Your task to perform on an android device: choose inbox layout in the gmail app Image 0: 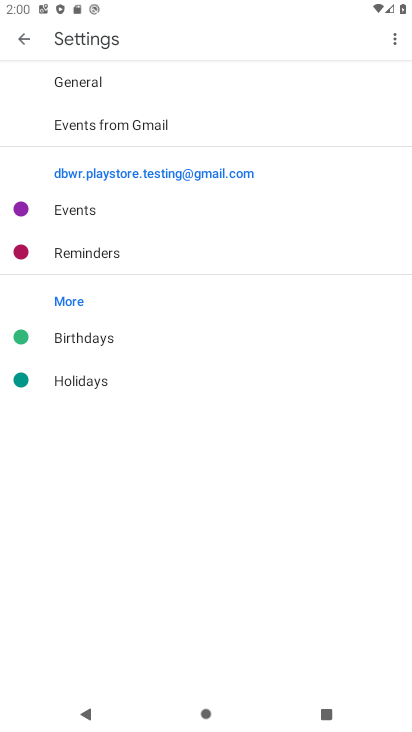
Step 0: press home button
Your task to perform on an android device: choose inbox layout in the gmail app Image 1: 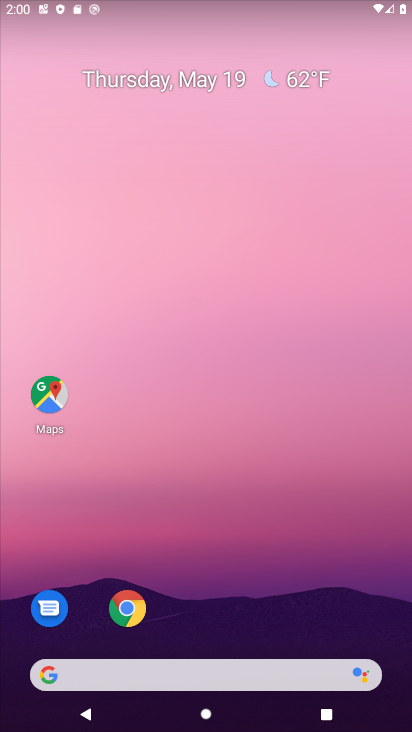
Step 1: drag from (236, 631) to (227, 2)
Your task to perform on an android device: choose inbox layout in the gmail app Image 2: 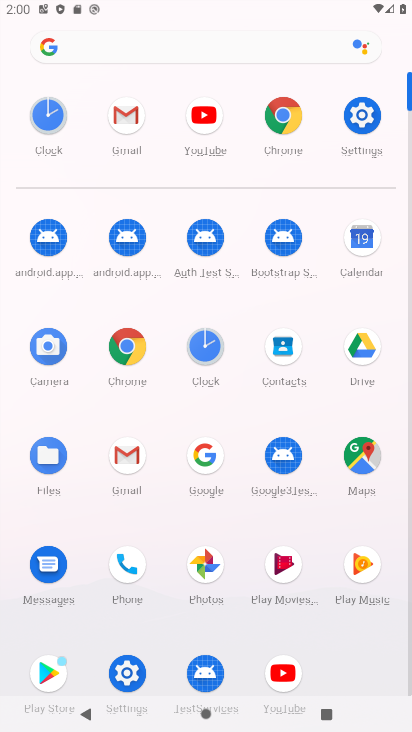
Step 2: click (118, 111)
Your task to perform on an android device: choose inbox layout in the gmail app Image 3: 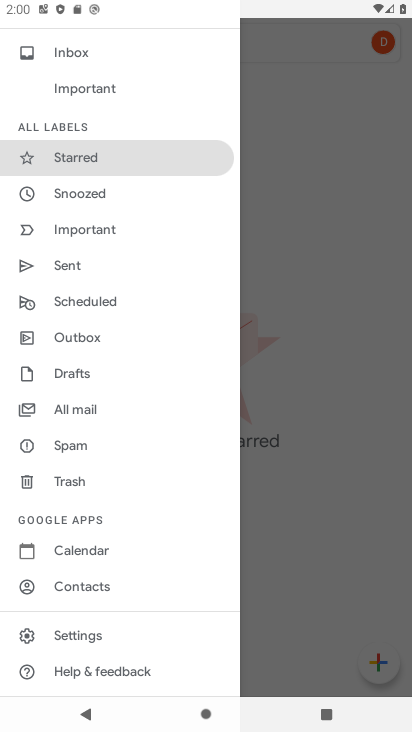
Step 3: click (75, 66)
Your task to perform on an android device: choose inbox layout in the gmail app Image 4: 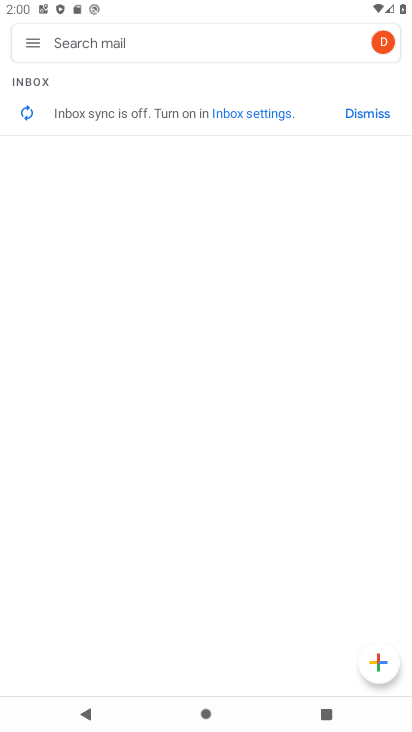
Step 4: task complete